Your task to perform on an android device: change text size in settings app Image 0: 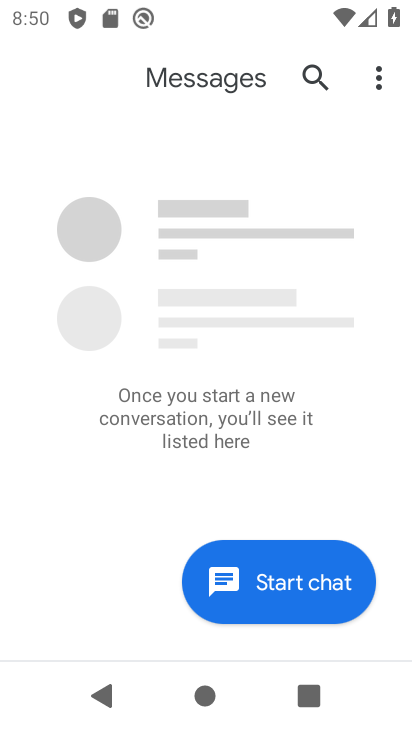
Step 0: press home button
Your task to perform on an android device: change text size in settings app Image 1: 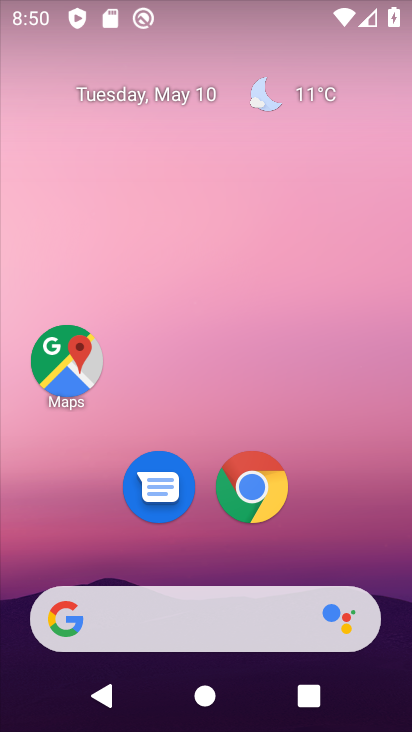
Step 1: drag from (202, 547) to (213, 99)
Your task to perform on an android device: change text size in settings app Image 2: 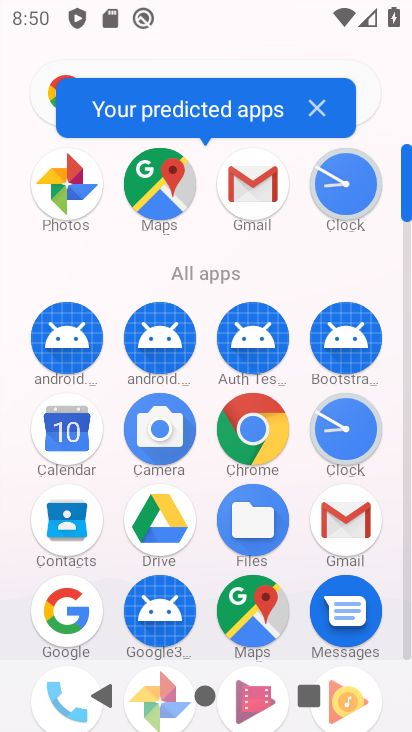
Step 2: drag from (207, 492) to (194, 176)
Your task to perform on an android device: change text size in settings app Image 3: 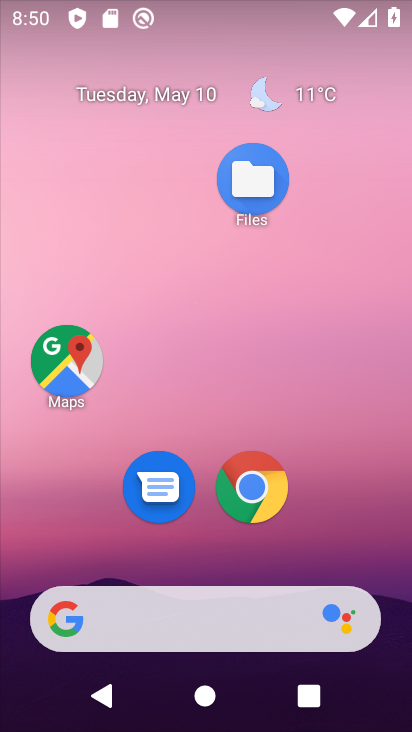
Step 3: drag from (207, 549) to (239, 64)
Your task to perform on an android device: change text size in settings app Image 4: 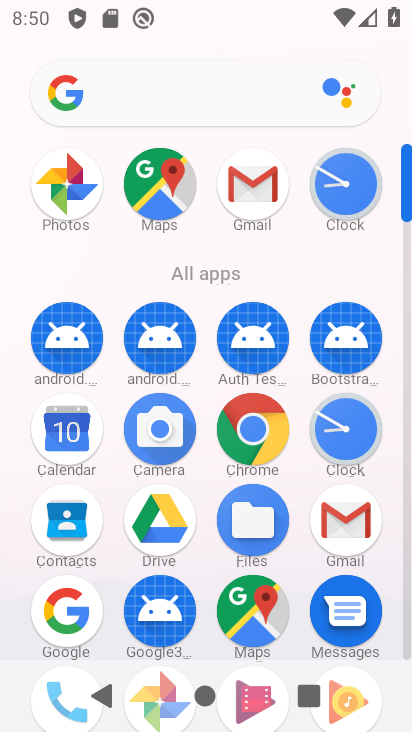
Step 4: drag from (204, 574) to (246, 161)
Your task to perform on an android device: change text size in settings app Image 5: 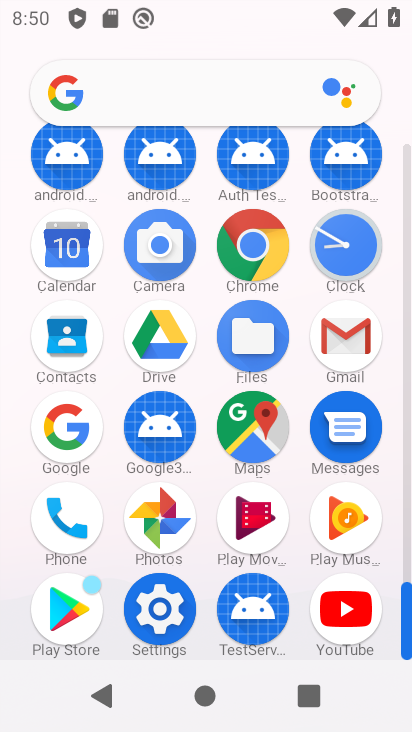
Step 5: click (164, 618)
Your task to perform on an android device: change text size in settings app Image 6: 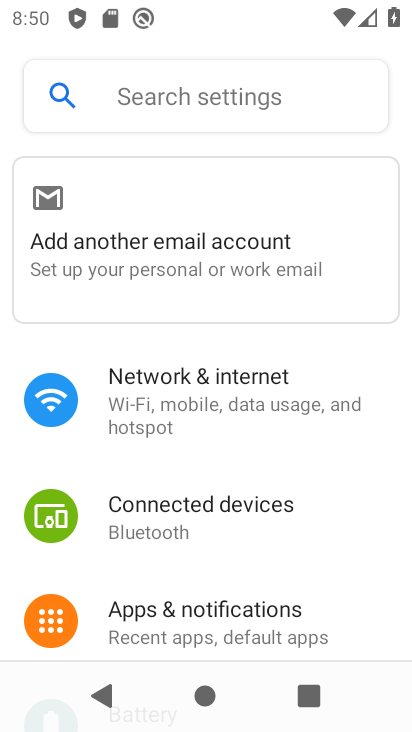
Step 6: drag from (255, 554) to (266, 83)
Your task to perform on an android device: change text size in settings app Image 7: 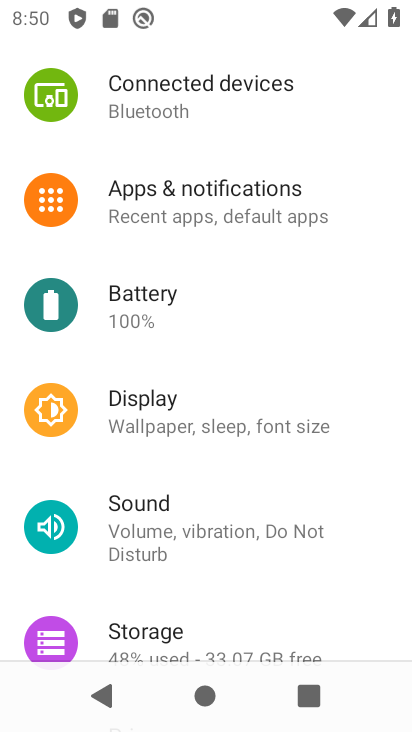
Step 7: drag from (221, 582) to (215, 17)
Your task to perform on an android device: change text size in settings app Image 8: 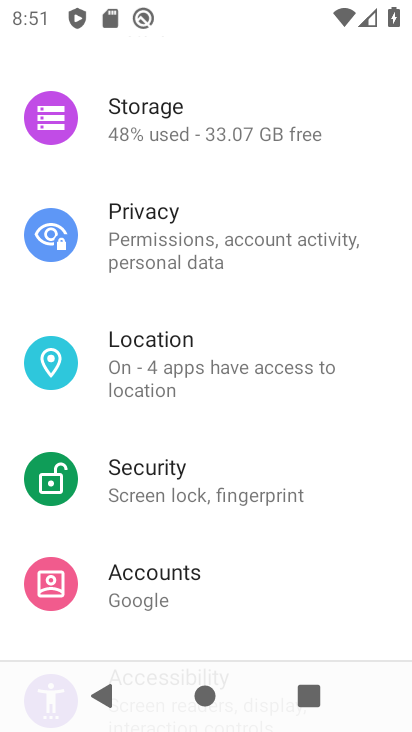
Step 8: drag from (241, 587) to (294, 644)
Your task to perform on an android device: change text size in settings app Image 9: 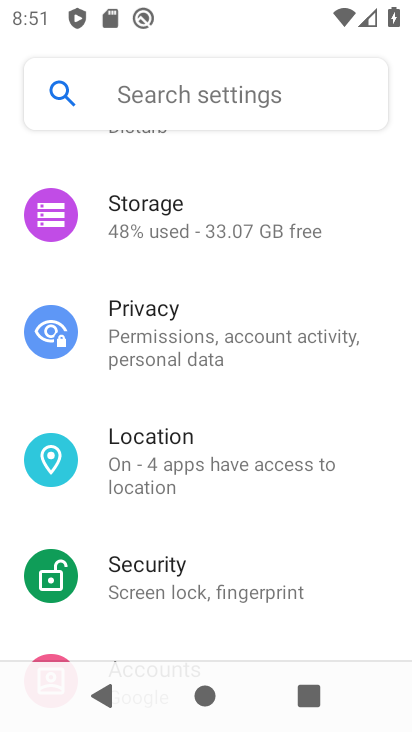
Step 9: drag from (214, 287) to (248, 610)
Your task to perform on an android device: change text size in settings app Image 10: 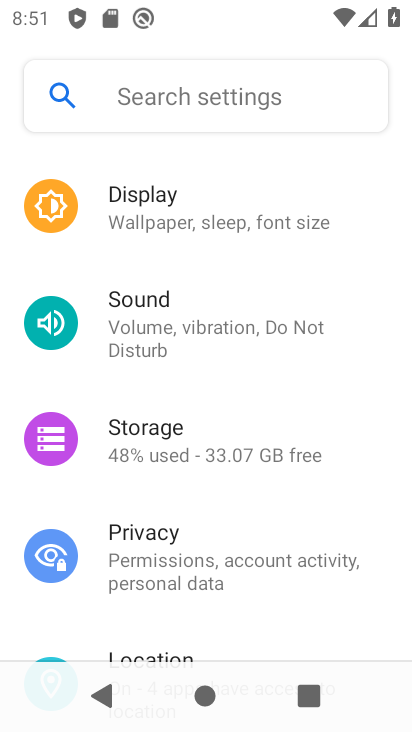
Step 10: click (183, 217)
Your task to perform on an android device: change text size in settings app Image 11: 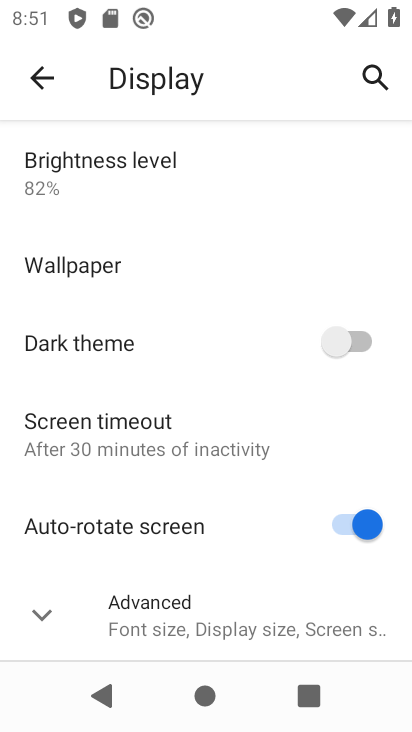
Step 11: drag from (219, 548) to (208, 369)
Your task to perform on an android device: change text size in settings app Image 12: 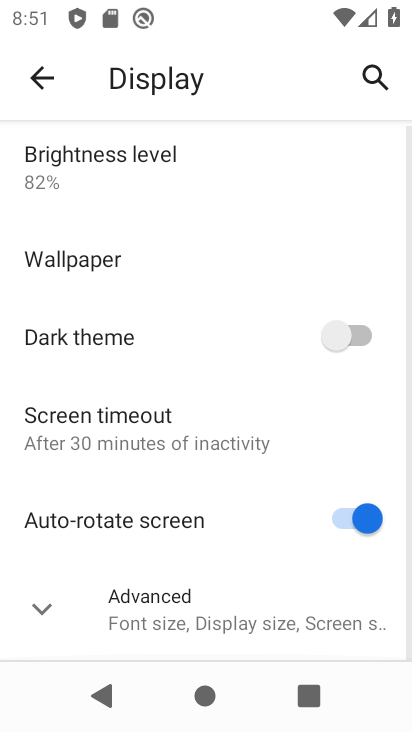
Step 12: click (183, 613)
Your task to perform on an android device: change text size in settings app Image 13: 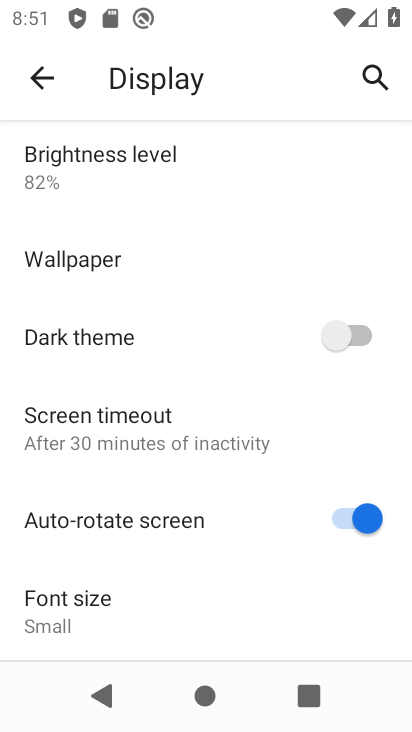
Step 13: click (93, 622)
Your task to perform on an android device: change text size in settings app Image 14: 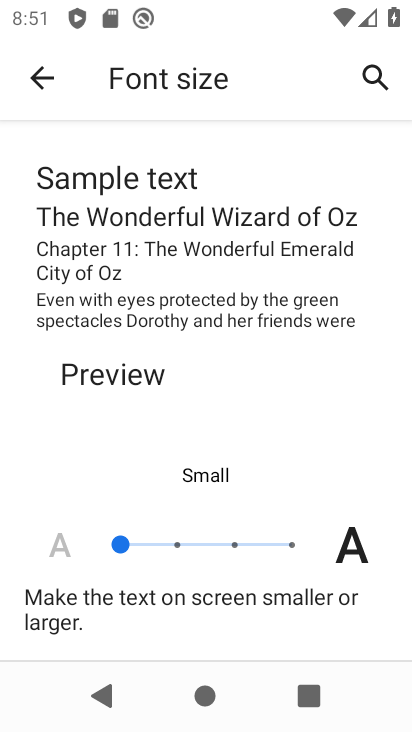
Step 14: click (126, 548)
Your task to perform on an android device: change text size in settings app Image 15: 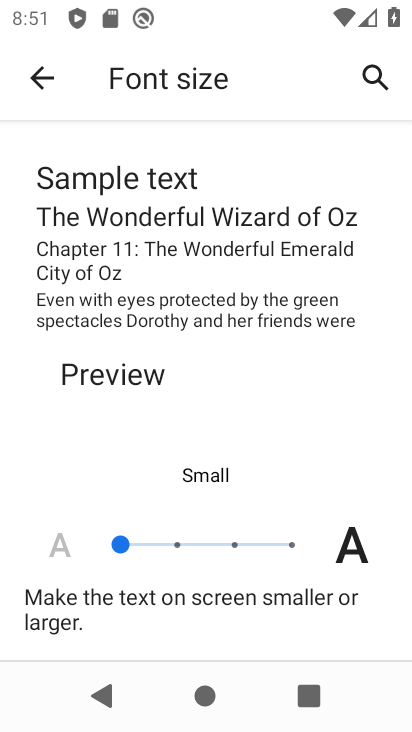
Step 15: task complete